Your task to perform on an android device: turn off sleep mode Image 0: 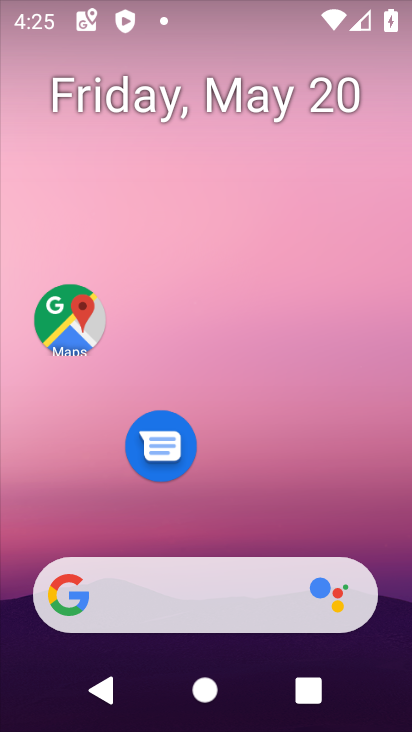
Step 0: drag from (267, 515) to (273, 89)
Your task to perform on an android device: turn off sleep mode Image 1: 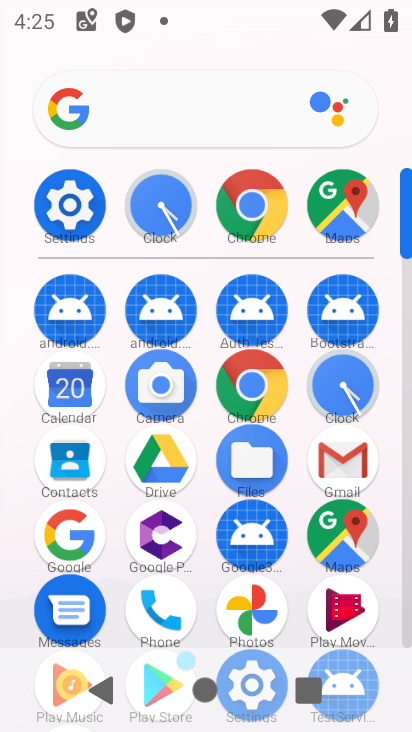
Step 1: click (95, 214)
Your task to perform on an android device: turn off sleep mode Image 2: 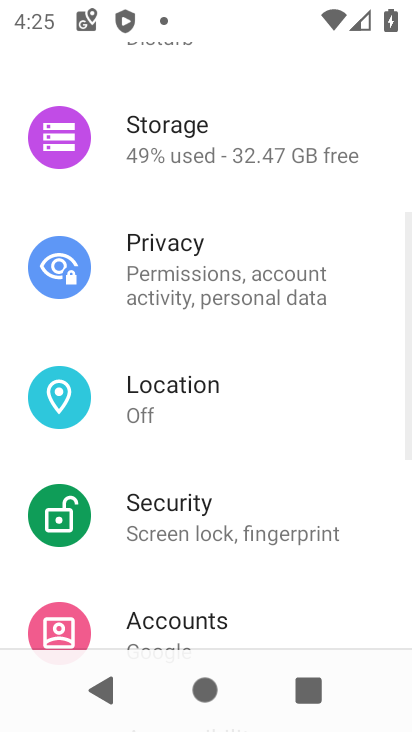
Step 2: drag from (263, 128) to (276, 525)
Your task to perform on an android device: turn off sleep mode Image 3: 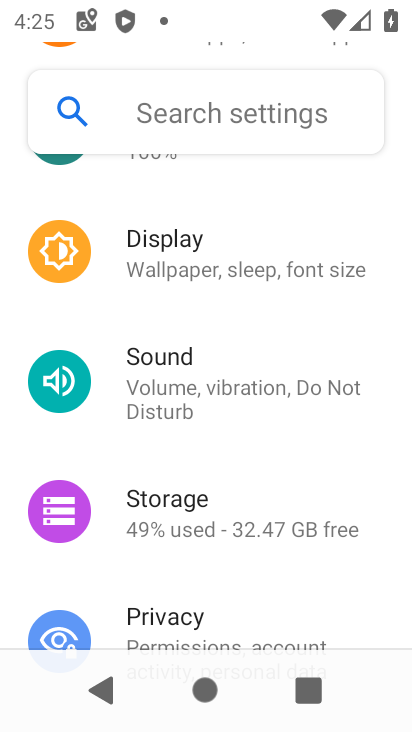
Step 3: drag from (245, 171) to (243, 327)
Your task to perform on an android device: turn off sleep mode Image 4: 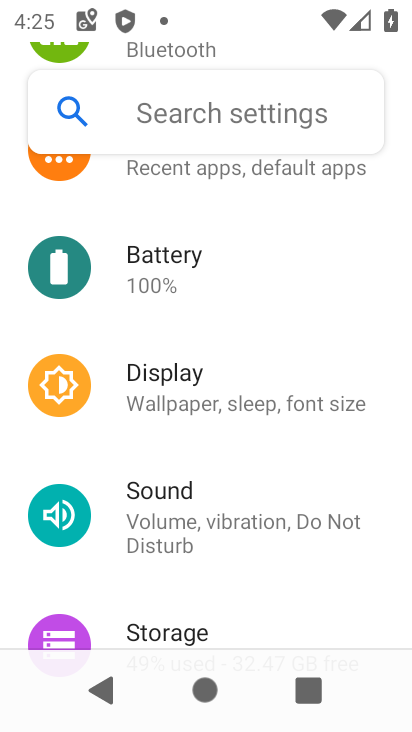
Step 4: click (224, 128)
Your task to perform on an android device: turn off sleep mode Image 5: 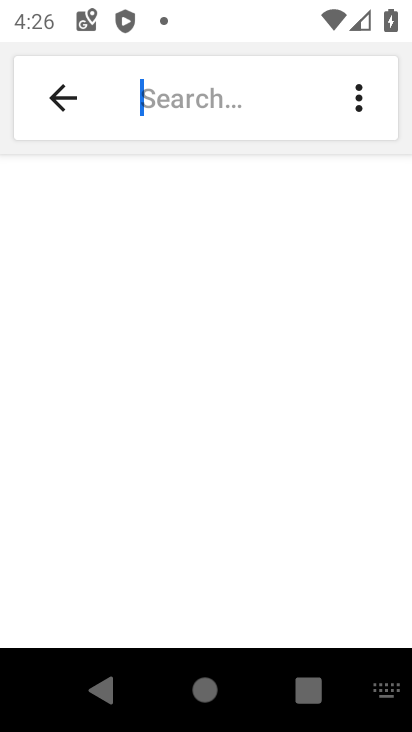
Step 5: type "sleep mode"
Your task to perform on an android device: turn off sleep mode Image 6: 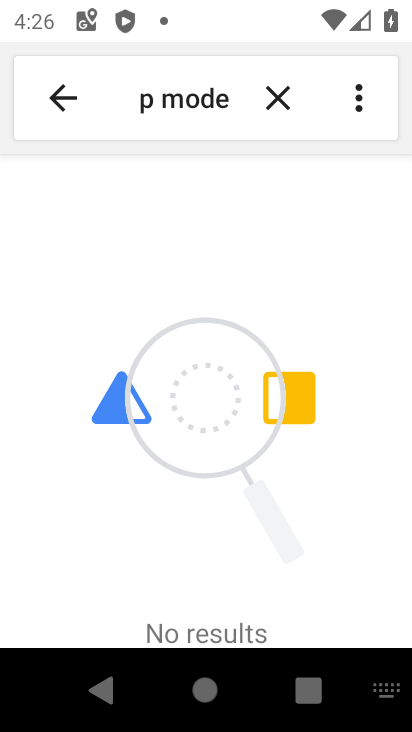
Step 6: task complete